Your task to perform on an android device: set the timer Image 0: 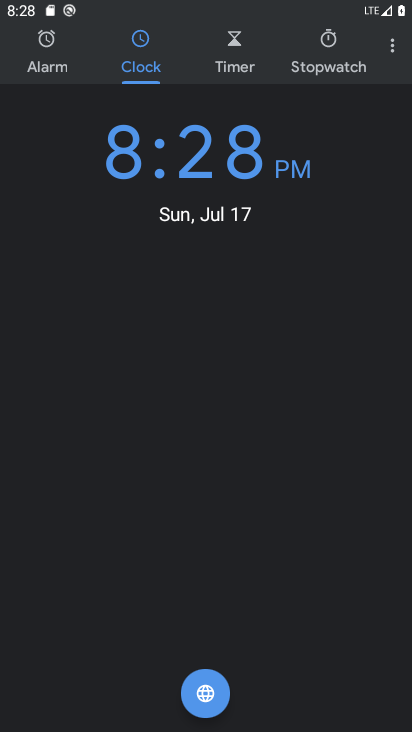
Step 0: click (245, 56)
Your task to perform on an android device: set the timer Image 1: 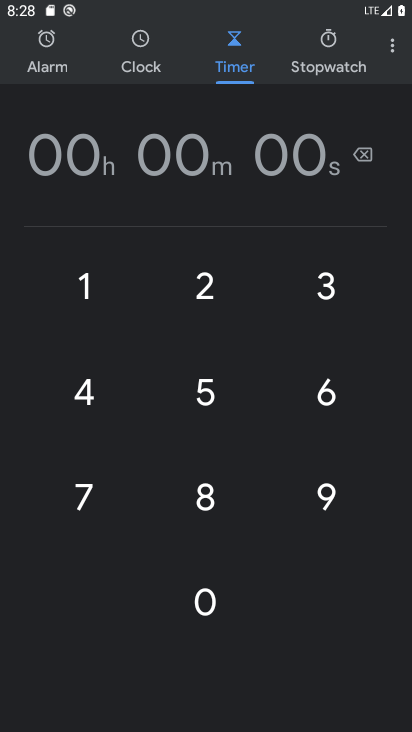
Step 1: click (214, 505)
Your task to perform on an android device: set the timer Image 2: 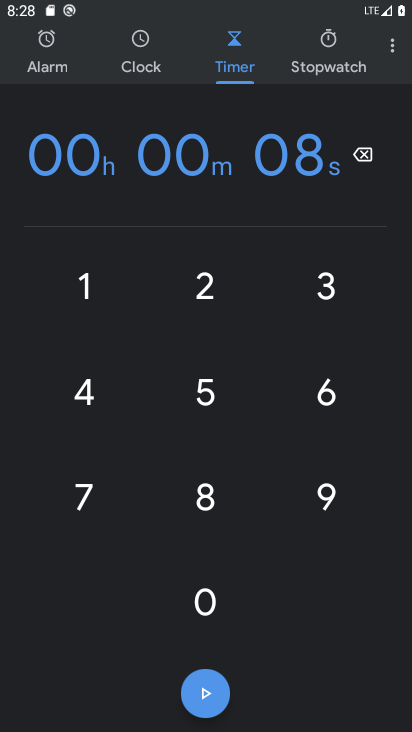
Step 2: click (212, 399)
Your task to perform on an android device: set the timer Image 3: 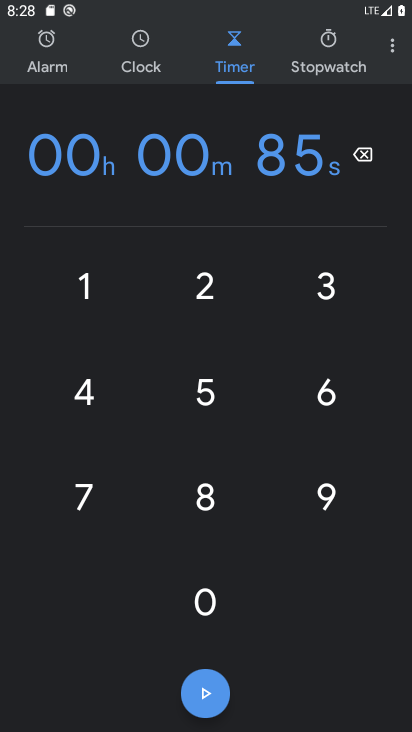
Step 3: click (76, 481)
Your task to perform on an android device: set the timer Image 4: 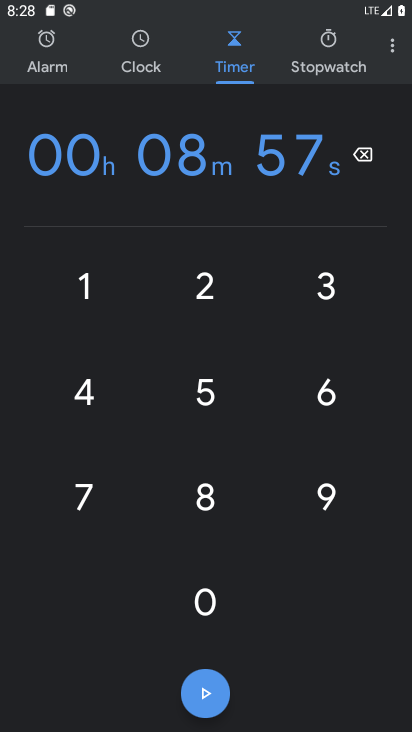
Step 4: click (215, 705)
Your task to perform on an android device: set the timer Image 5: 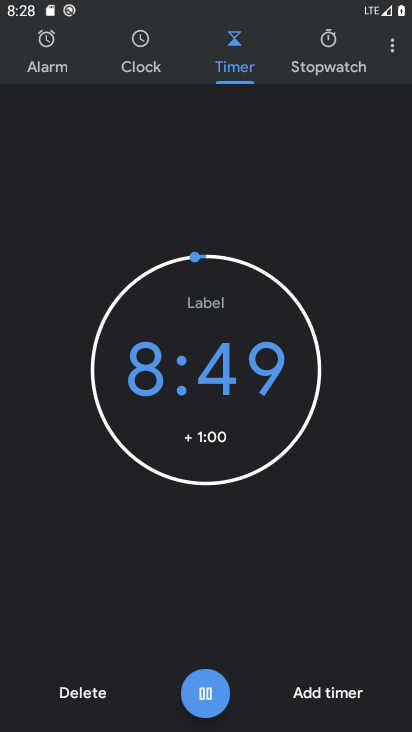
Step 5: task complete